Your task to perform on an android device: Show me productivity apps on the Play Store Image 0: 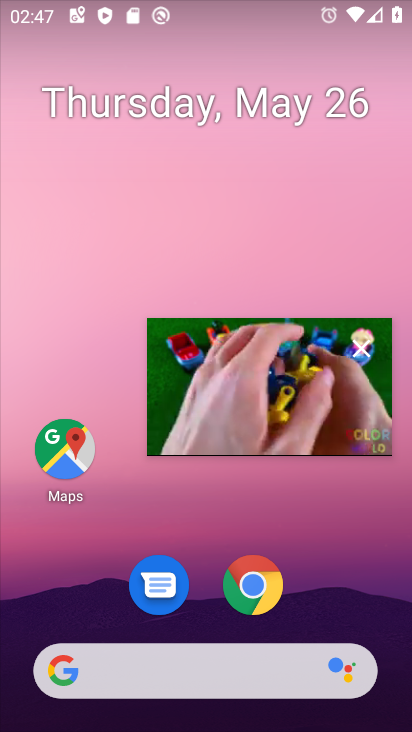
Step 0: drag from (309, 342) to (409, 401)
Your task to perform on an android device: Show me productivity apps on the Play Store Image 1: 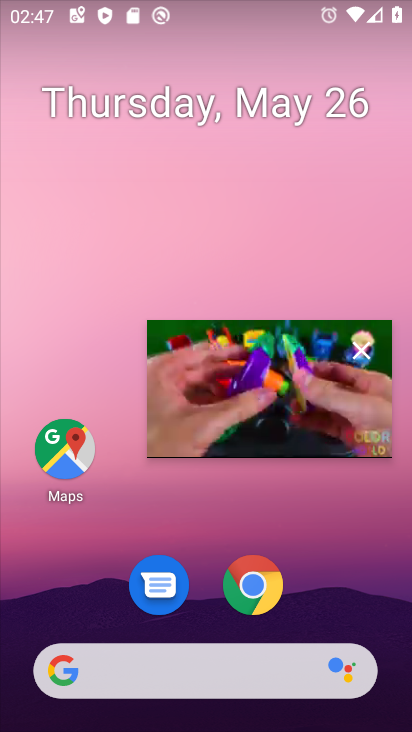
Step 1: drag from (301, 375) to (396, 720)
Your task to perform on an android device: Show me productivity apps on the Play Store Image 2: 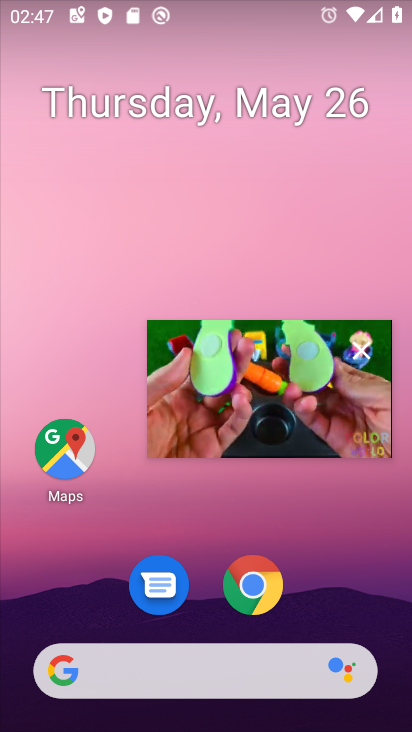
Step 2: drag from (292, 338) to (338, 729)
Your task to perform on an android device: Show me productivity apps on the Play Store Image 3: 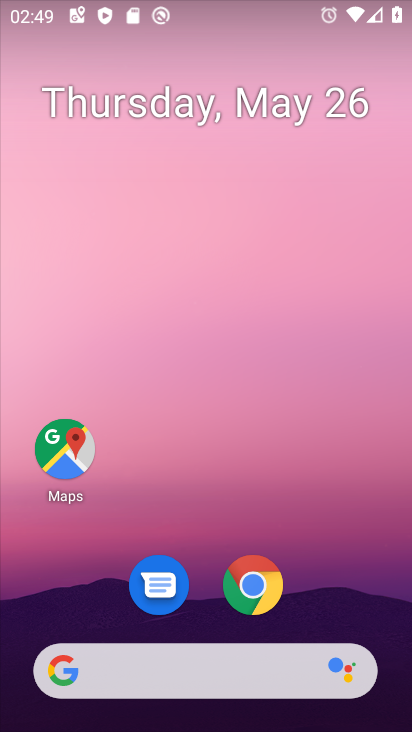
Step 3: drag from (273, 525) to (294, 26)
Your task to perform on an android device: Show me productivity apps on the Play Store Image 4: 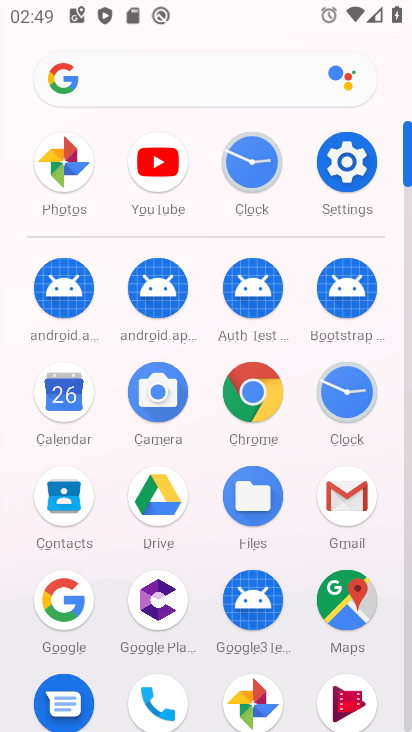
Step 4: drag from (234, 449) to (241, 159)
Your task to perform on an android device: Show me productivity apps on the Play Store Image 5: 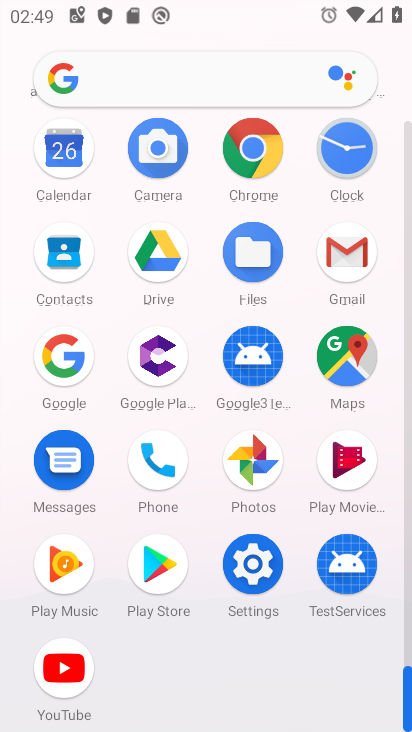
Step 5: click (159, 557)
Your task to perform on an android device: Show me productivity apps on the Play Store Image 6: 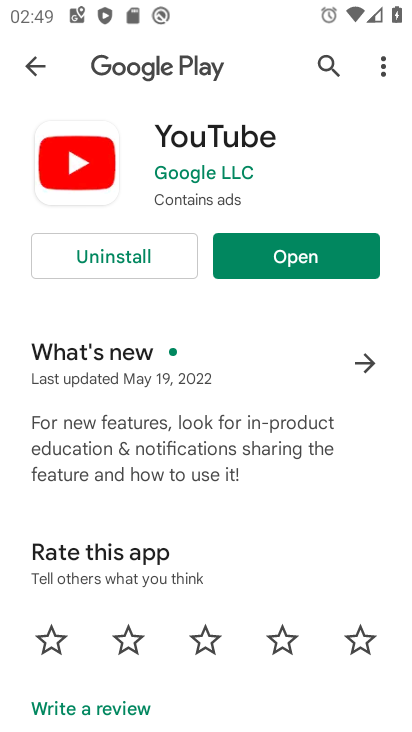
Step 6: click (32, 69)
Your task to perform on an android device: Show me productivity apps on the Play Store Image 7: 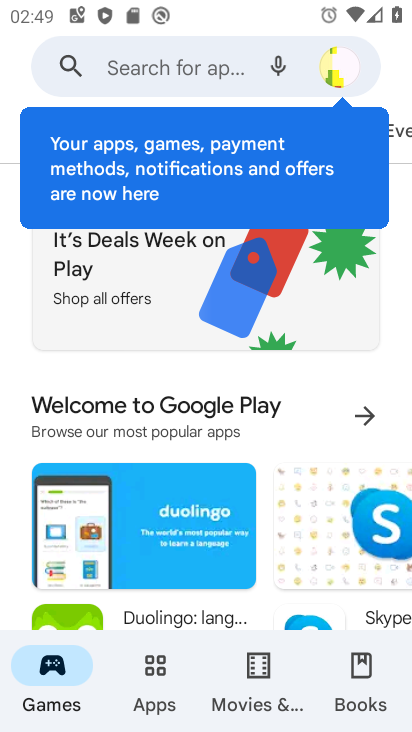
Step 7: click (167, 672)
Your task to perform on an android device: Show me productivity apps on the Play Store Image 8: 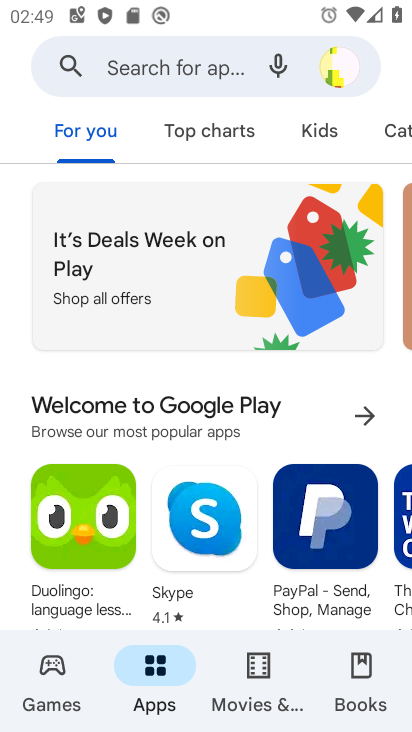
Step 8: click (391, 117)
Your task to perform on an android device: Show me productivity apps on the Play Store Image 9: 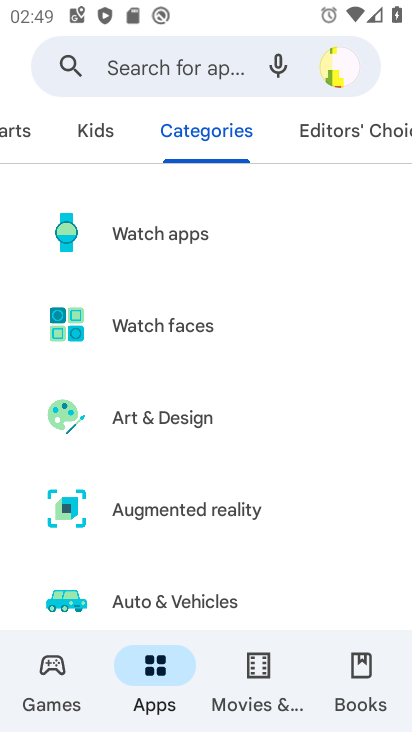
Step 9: drag from (271, 598) to (287, 12)
Your task to perform on an android device: Show me productivity apps on the Play Store Image 10: 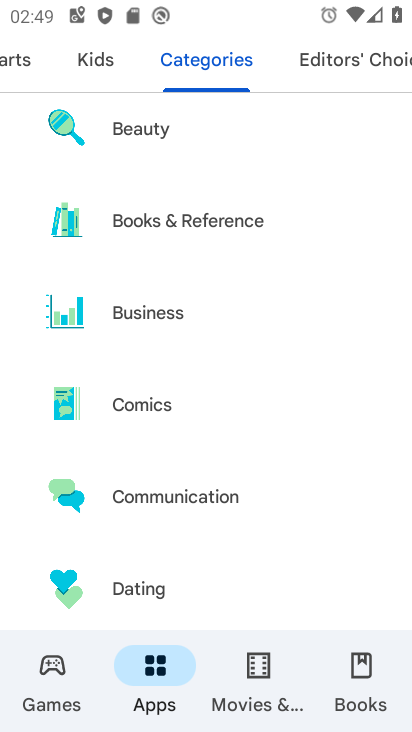
Step 10: drag from (262, 555) to (276, 33)
Your task to perform on an android device: Show me productivity apps on the Play Store Image 11: 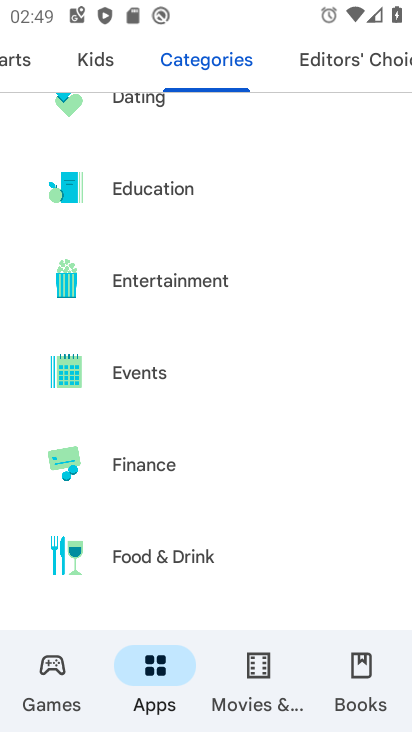
Step 11: drag from (256, 594) to (278, 0)
Your task to perform on an android device: Show me productivity apps on the Play Store Image 12: 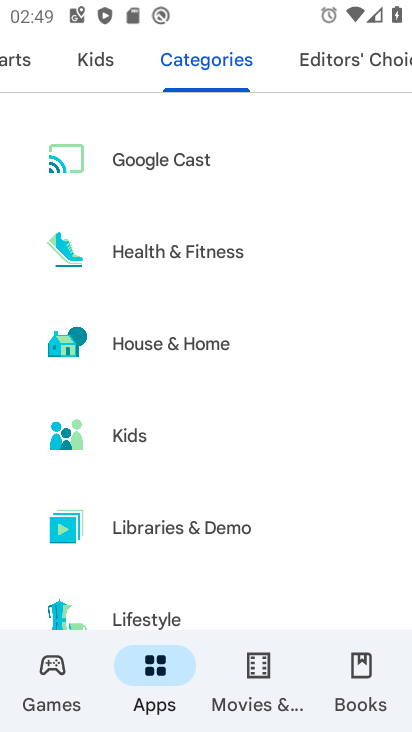
Step 12: drag from (280, 603) to (348, 48)
Your task to perform on an android device: Show me productivity apps on the Play Store Image 13: 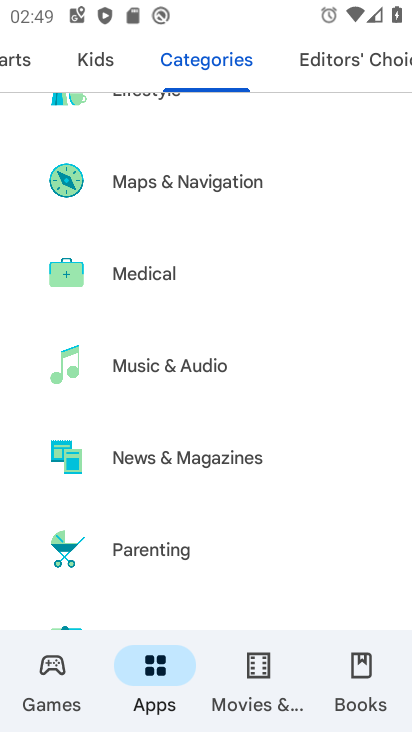
Step 13: drag from (265, 530) to (244, 10)
Your task to perform on an android device: Show me productivity apps on the Play Store Image 14: 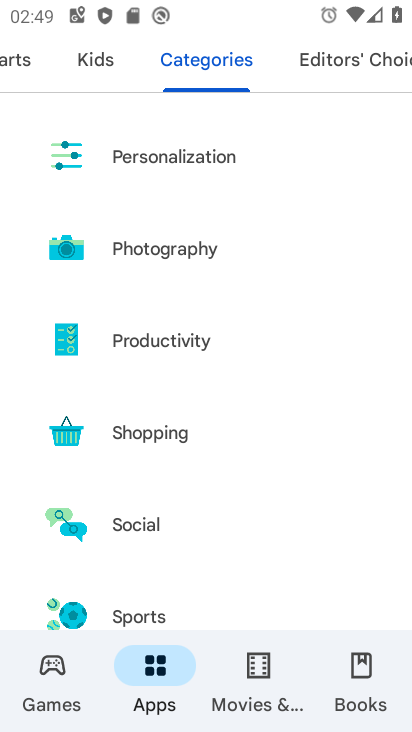
Step 14: click (194, 335)
Your task to perform on an android device: Show me productivity apps on the Play Store Image 15: 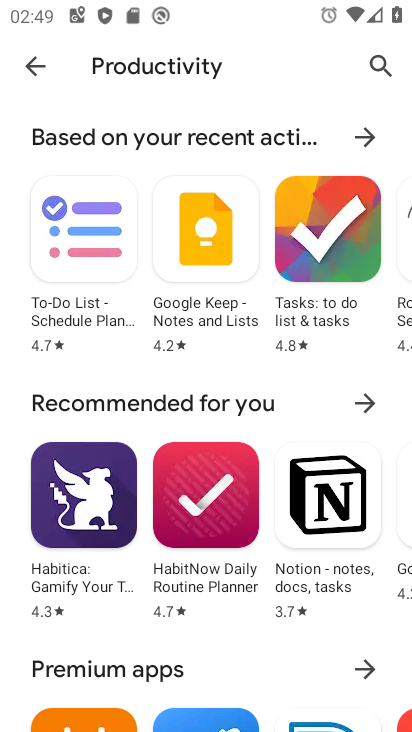
Step 15: task complete